Your task to perform on an android device: Add lg ultragear to the cart on newegg, then select checkout. Image 0: 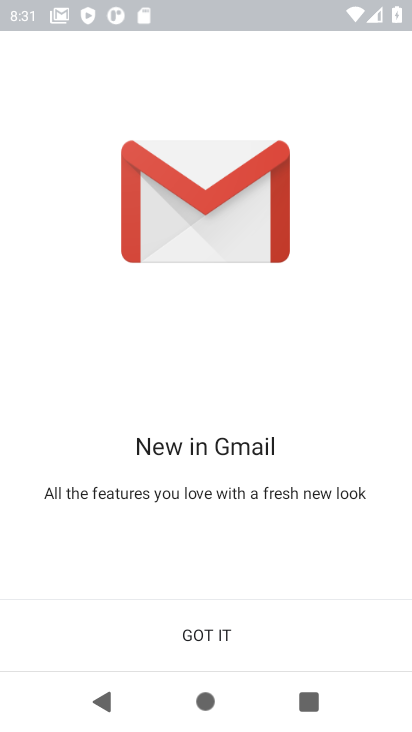
Step 0: press home button
Your task to perform on an android device: Add lg ultragear to the cart on newegg, then select checkout. Image 1: 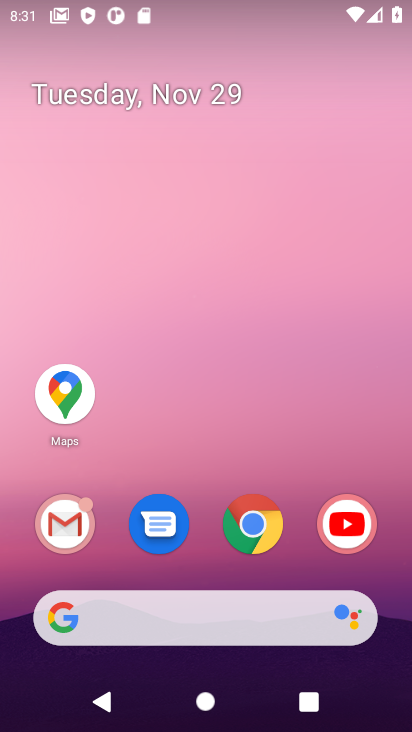
Step 1: click (252, 529)
Your task to perform on an android device: Add lg ultragear to the cart on newegg, then select checkout. Image 2: 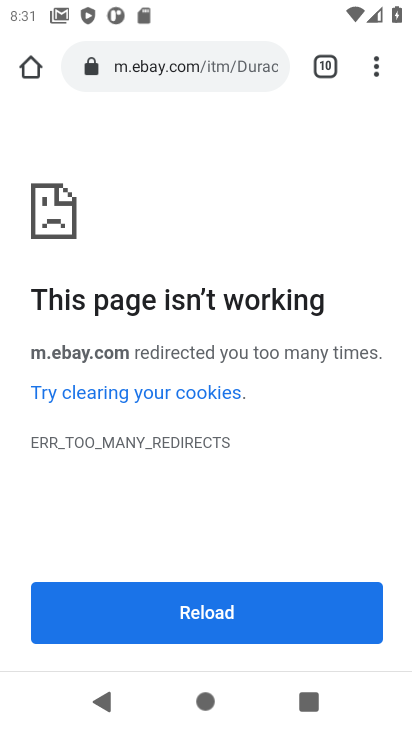
Step 2: click (167, 67)
Your task to perform on an android device: Add lg ultragear to the cart on newegg, then select checkout. Image 3: 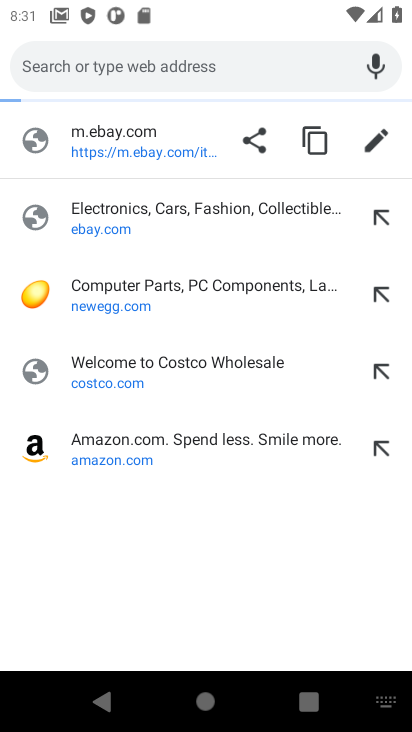
Step 3: click (90, 307)
Your task to perform on an android device: Add lg ultragear to the cart on newegg, then select checkout. Image 4: 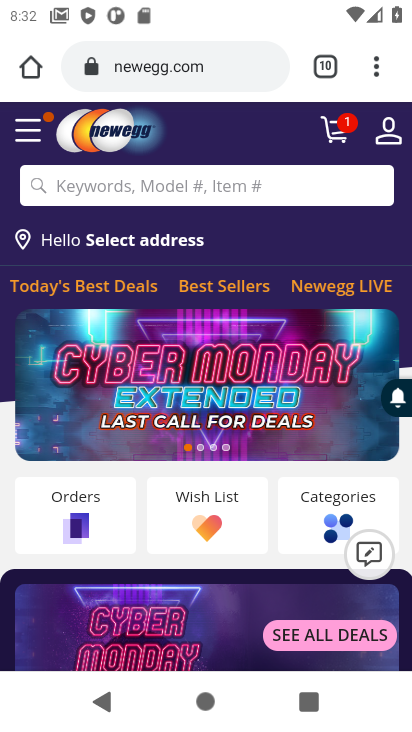
Step 4: click (149, 198)
Your task to perform on an android device: Add lg ultragear to the cart on newegg, then select checkout. Image 5: 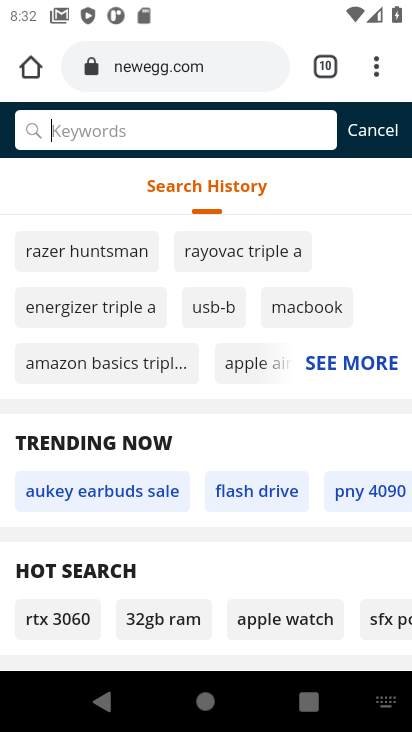
Step 5: type "lg ultragear"
Your task to perform on an android device: Add lg ultragear to the cart on newegg, then select checkout. Image 6: 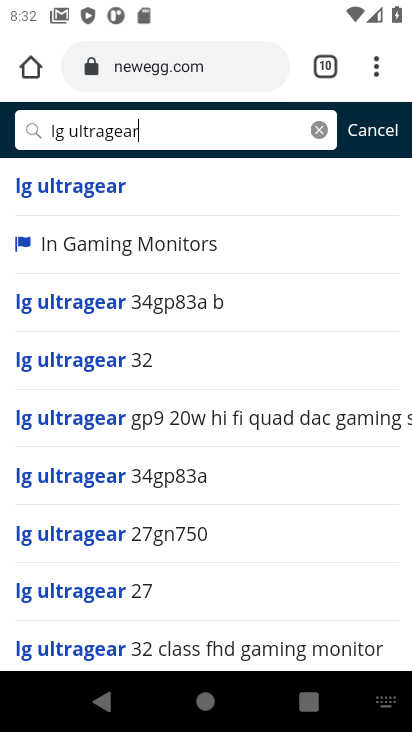
Step 6: click (55, 185)
Your task to perform on an android device: Add lg ultragear to the cart on newegg, then select checkout. Image 7: 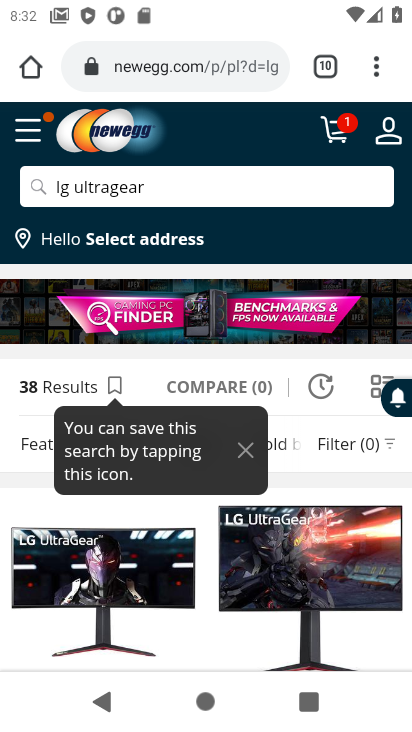
Step 7: drag from (192, 586) to (187, 295)
Your task to perform on an android device: Add lg ultragear to the cart on newegg, then select checkout. Image 8: 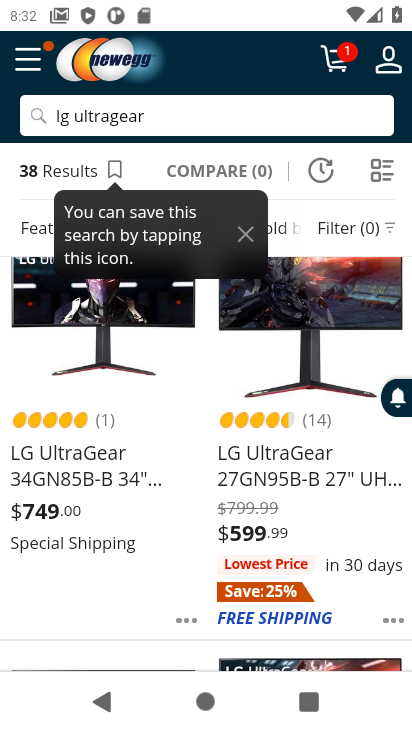
Step 8: click (65, 457)
Your task to perform on an android device: Add lg ultragear to the cart on newegg, then select checkout. Image 9: 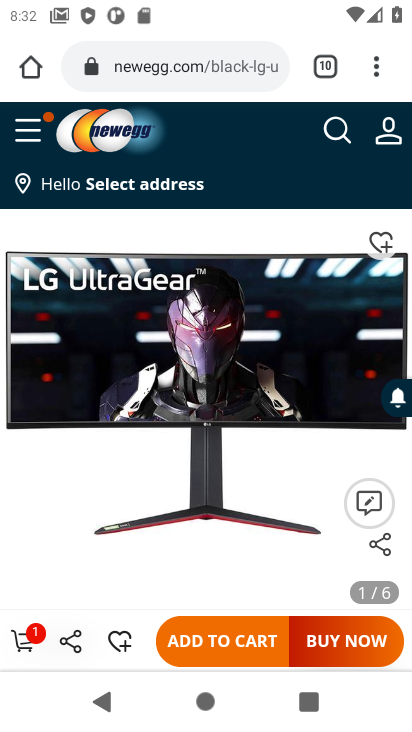
Step 9: click (225, 647)
Your task to perform on an android device: Add lg ultragear to the cart on newegg, then select checkout. Image 10: 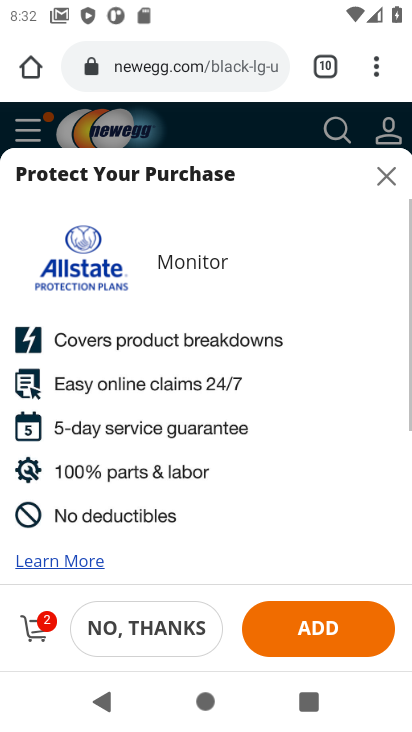
Step 10: click (37, 626)
Your task to perform on an android device: Add lg ultragear to the cart on newegg, then select checkout. Image 11: 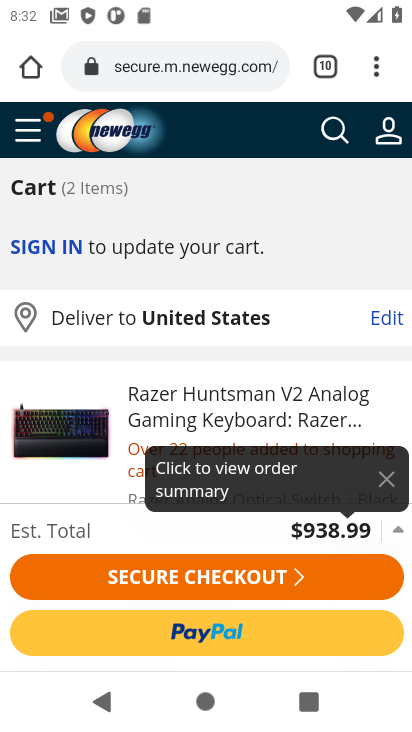
Step 11: click (163, 582)
Your task to perform on an android device: Add lg ultragear to the cart on newegg, then select checkout. Image 12: 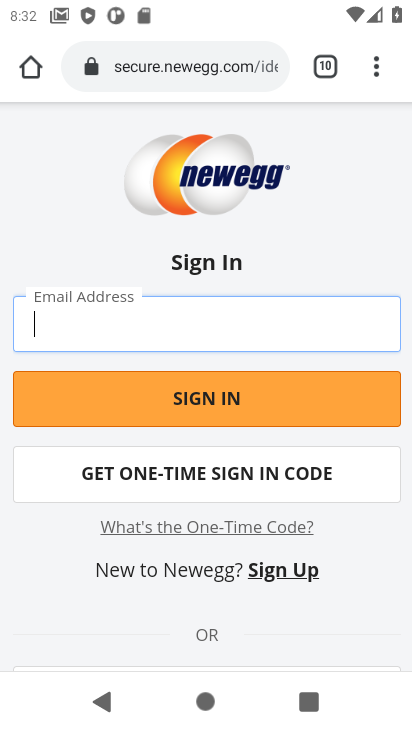
Step 12: task complete